Your task to perform on an android device: turn on improve location accuracy Image 0: 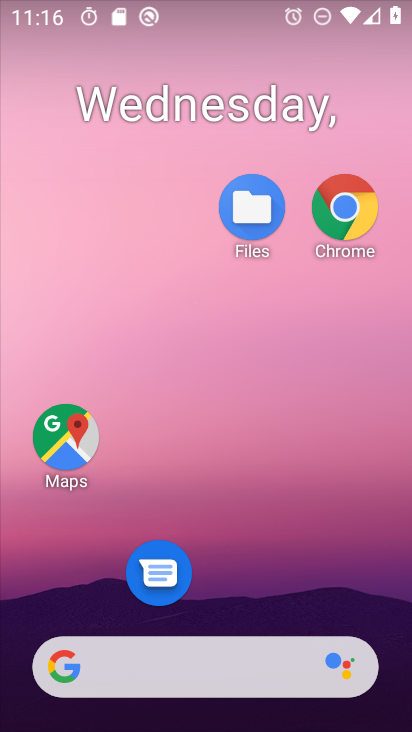
Step 0: drag from (215, 636) to (275, 116)
Your task to perform on an android device: turn on improve location accuracy Image 1: 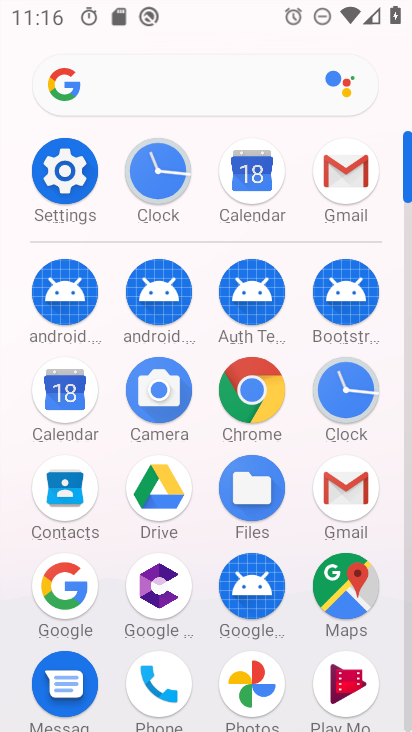
Step 1: click (60, 193)
Your task to perform on an android device: turn on improve location accuracy Image 2: 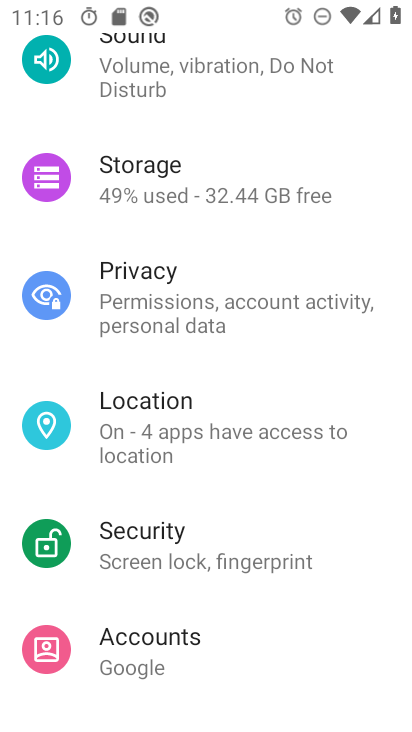
Step 2: click (182, 400)
Your task to perform on an android device: turn on improve location accuracy Image 3: 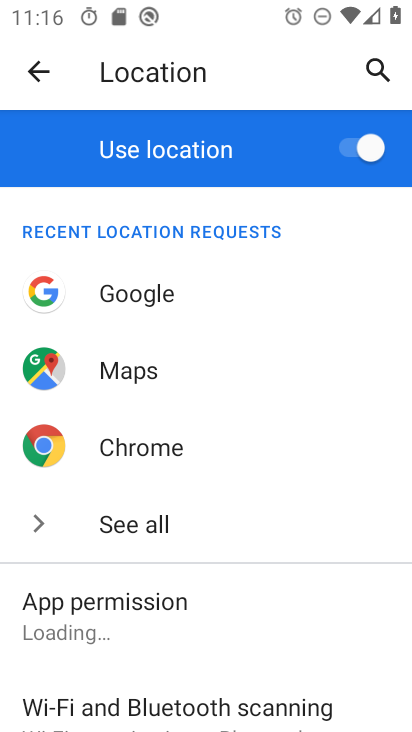
Step 3: drag from (200, 569) to (206, 227)
Your task to perform on an android device: turn on improve location accuracy Image 4: 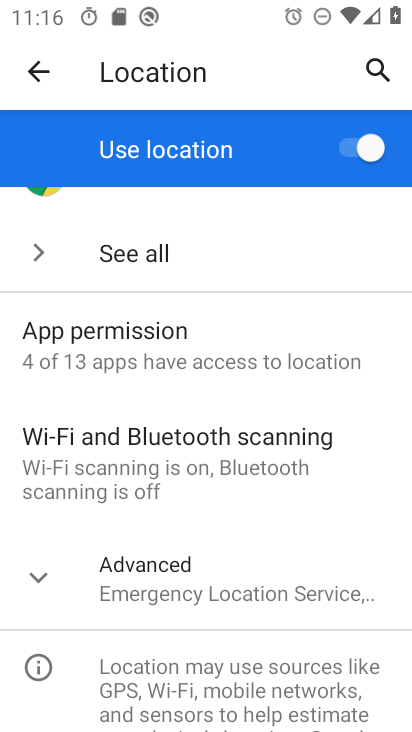
Step 4: click (199, 577)
Your task to perform on an android device: turn on improve location accuracy Image 5: 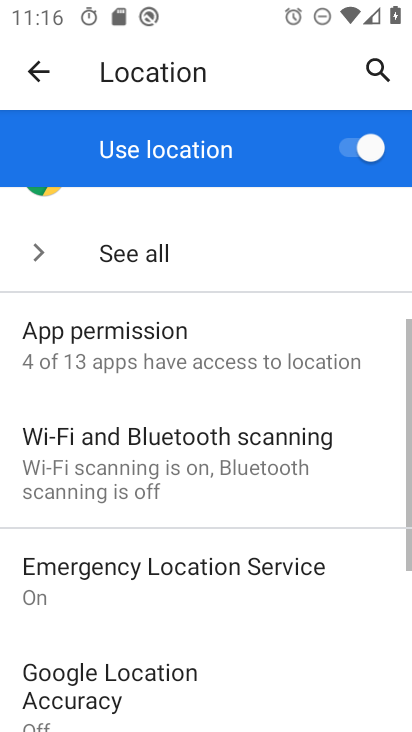
Step 5: drag from (200, 552) to (207, 236)
Your task to perform on an android device: turn on improve location accuracy Image 6: 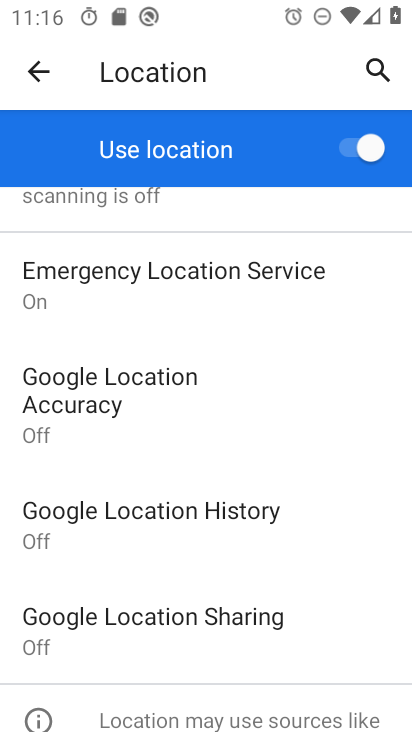
Step 6: click (176, 419)
Your task to perform on an android device: turn on improve location accuracy Image 7: 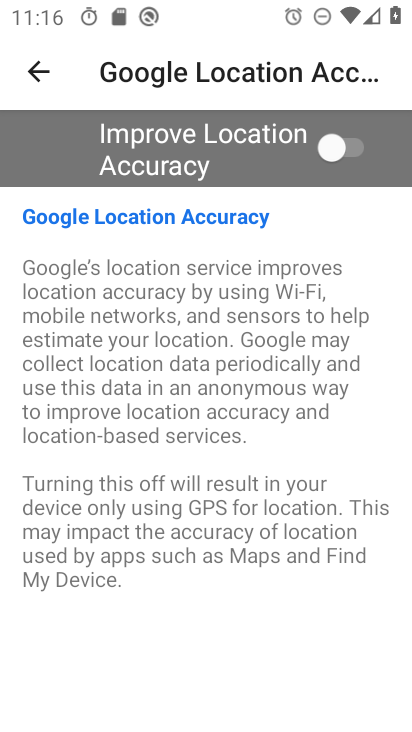
Step 7: click (359, 155)
Your task to perform on an android device: turn on improve location accuracy Image 8: 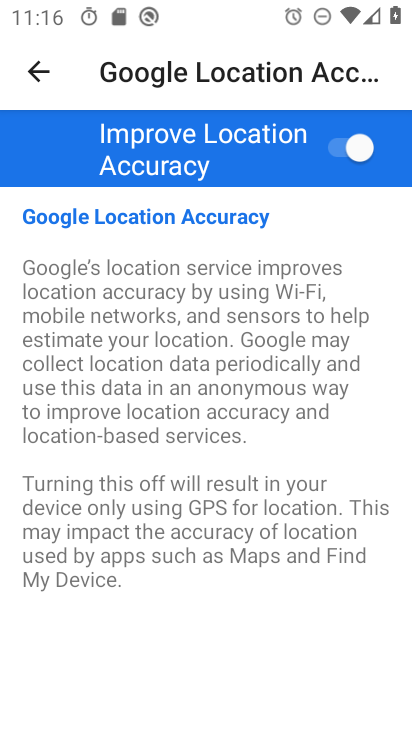
Step 8: task complete